Your task to perform on an android device: Open Chrome and go to settings Image 0: 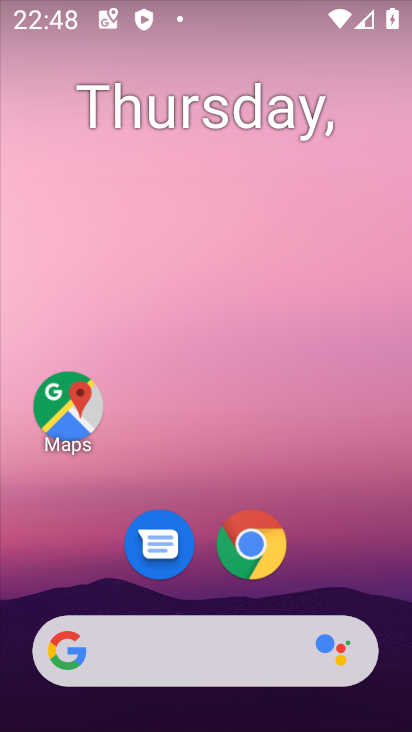
Step 0: drag from (356, 544) to (247, 9)
Your task to perform on an android device: Open Chrome and go to settings Image 1: 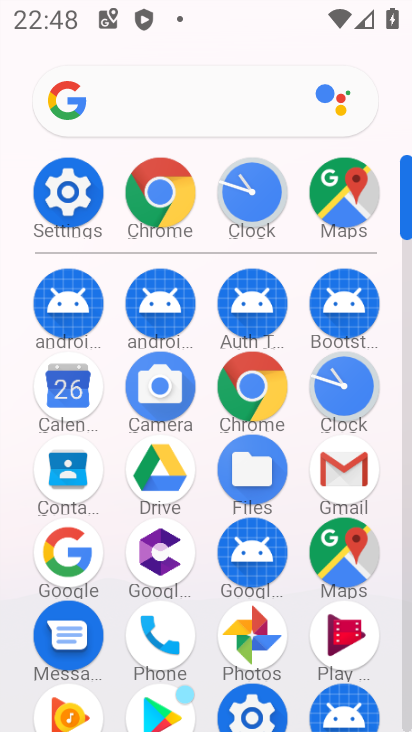
Step 1: drag from (4, 548) to (17, 207)
Your task to perform on an android device: Open Chrome and go to settings Image 2: 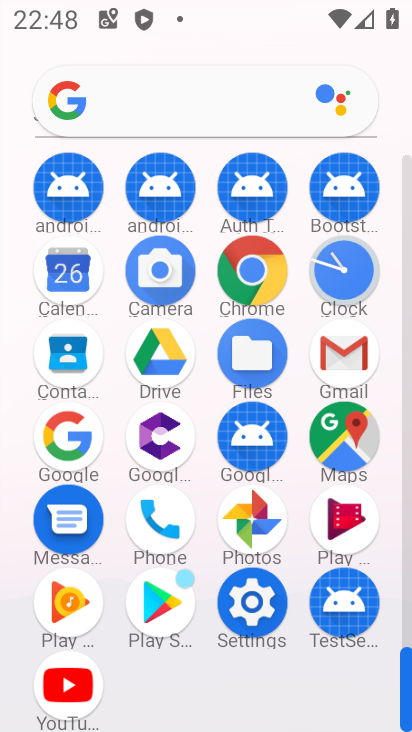
Step 2: drag from (7, 560) to (24, 261)
Your task to perform on an android device: Open Chrome and go to settings Image 3: 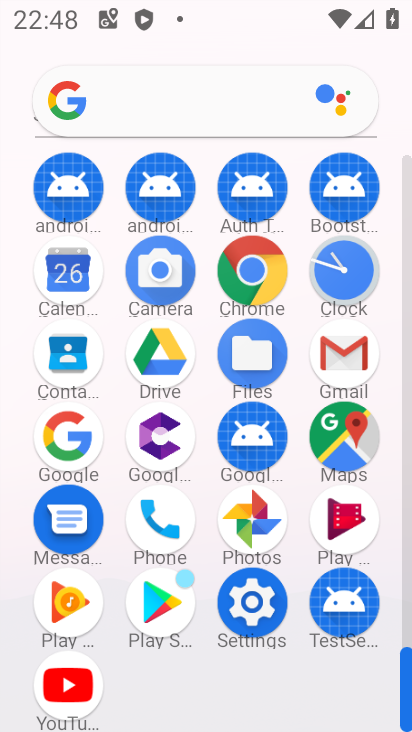
Step 3: drag from (3, 592) to (7, 249)
Your task to perform on an android device: Open Chrome and go to settings Image 4: 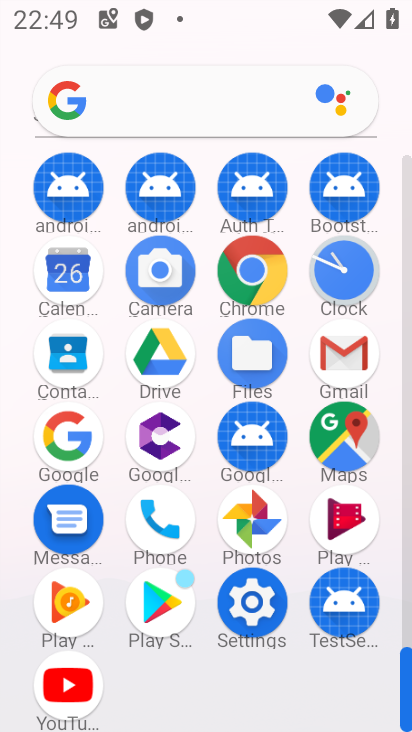
Step 4: click (250, 261)
Your task to perform on an android device: Open Chrome and go to settings Image 5: 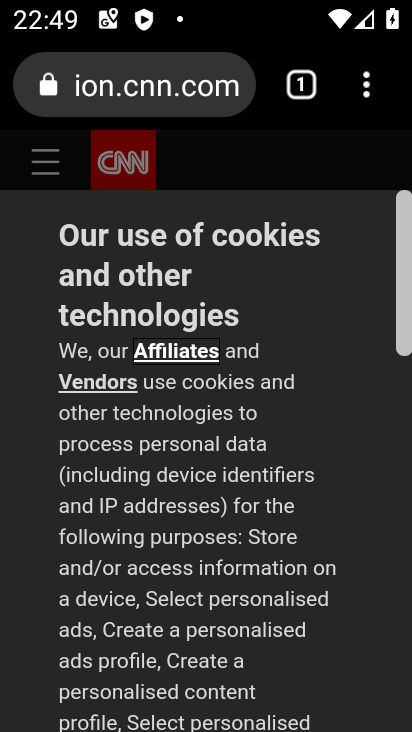
Step 5: task complete